Your task to perform on an android device: Do I have any events tomorrow? Image 0: 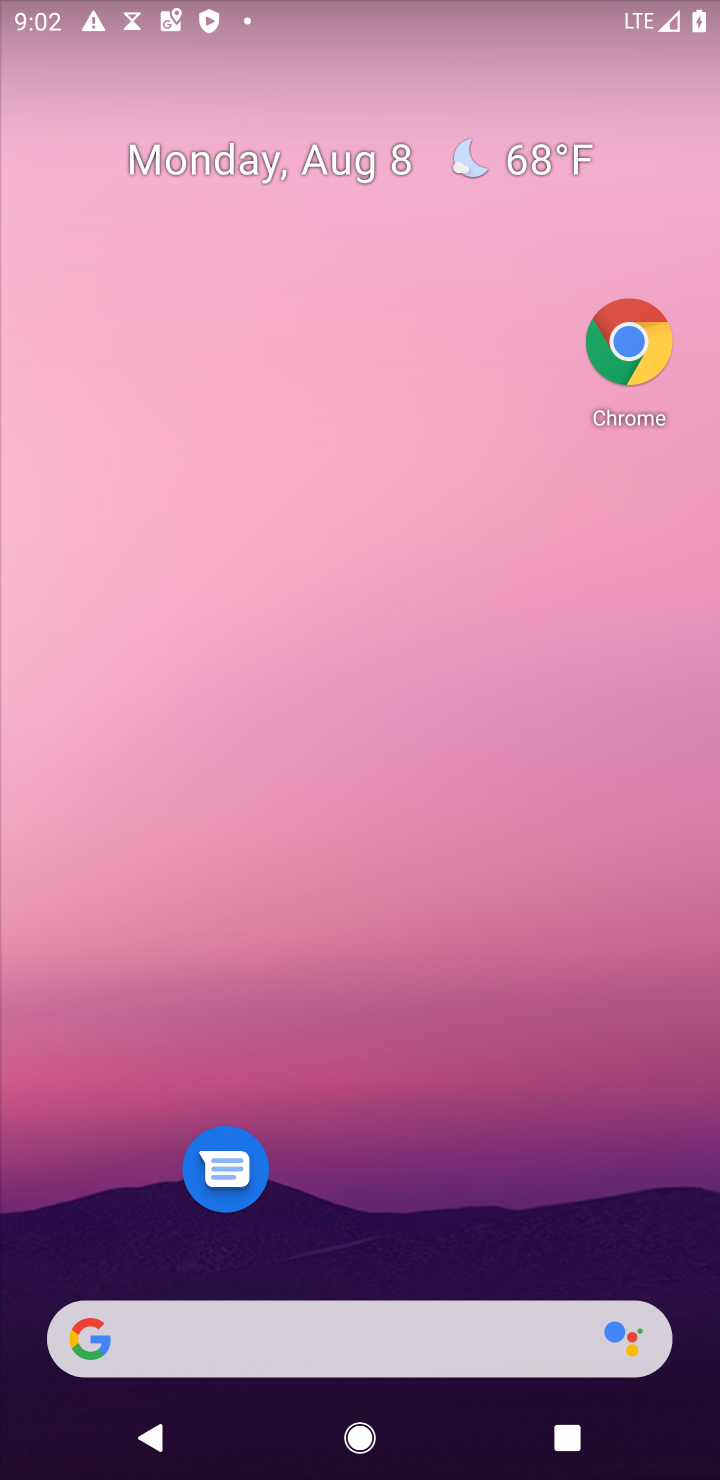
Step 0: drag from (447, 973) to (715, 612)
Your task to perform on an android device: Do I have any events tomorrow? Image 1: 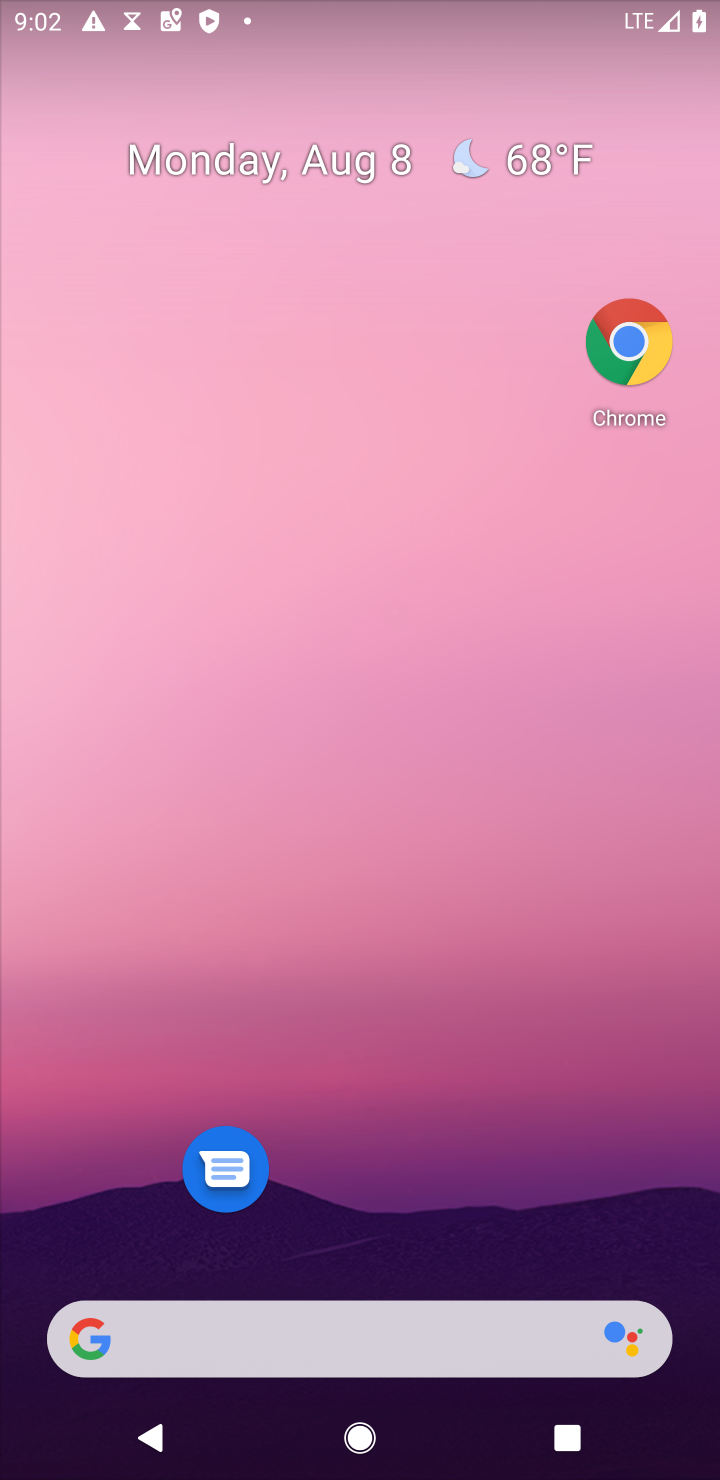
Step 1: drag from (354, 1263) to (511, 245)
Your task to perform on an android device: Do I have any events tomorrow? Image 2: 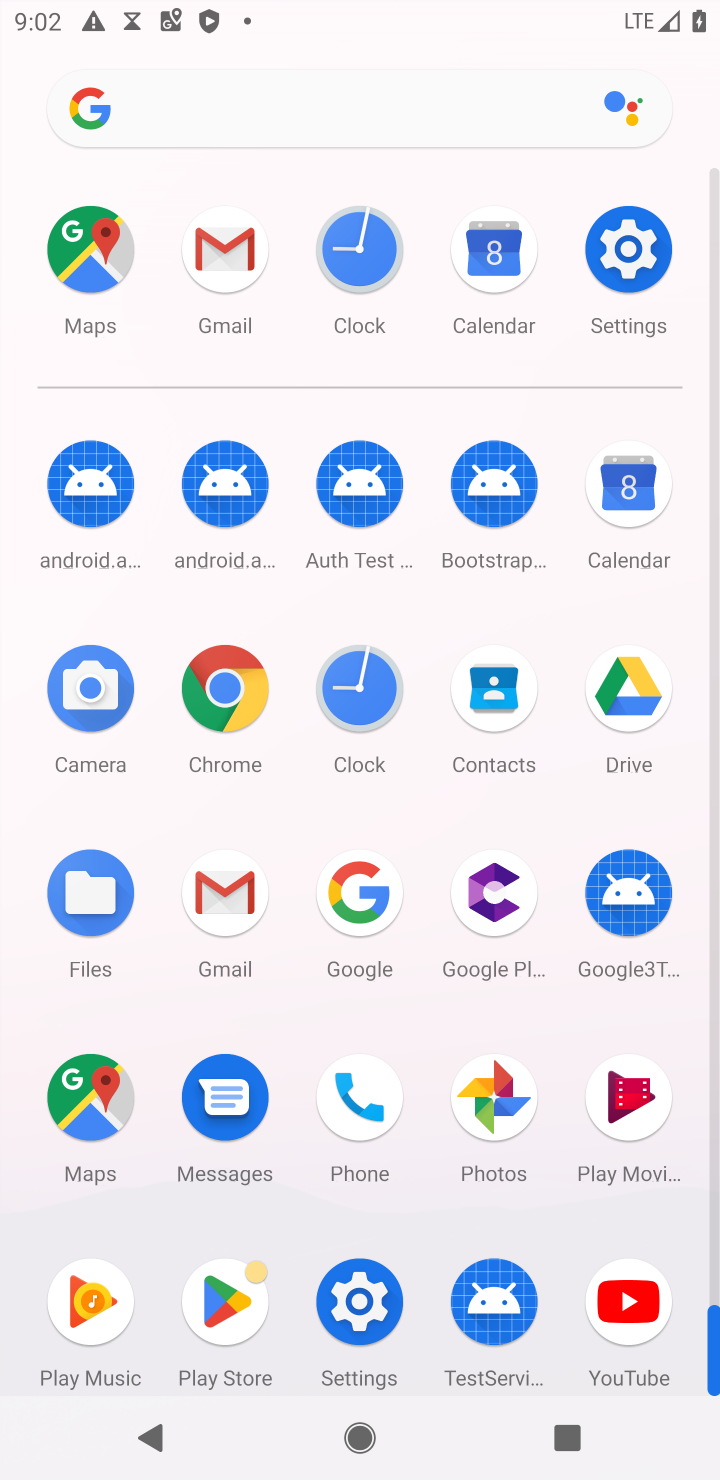
Step 2: click (486, 289)
Your task to perform on an android device: Do I have any events tomorrow? Image 3: 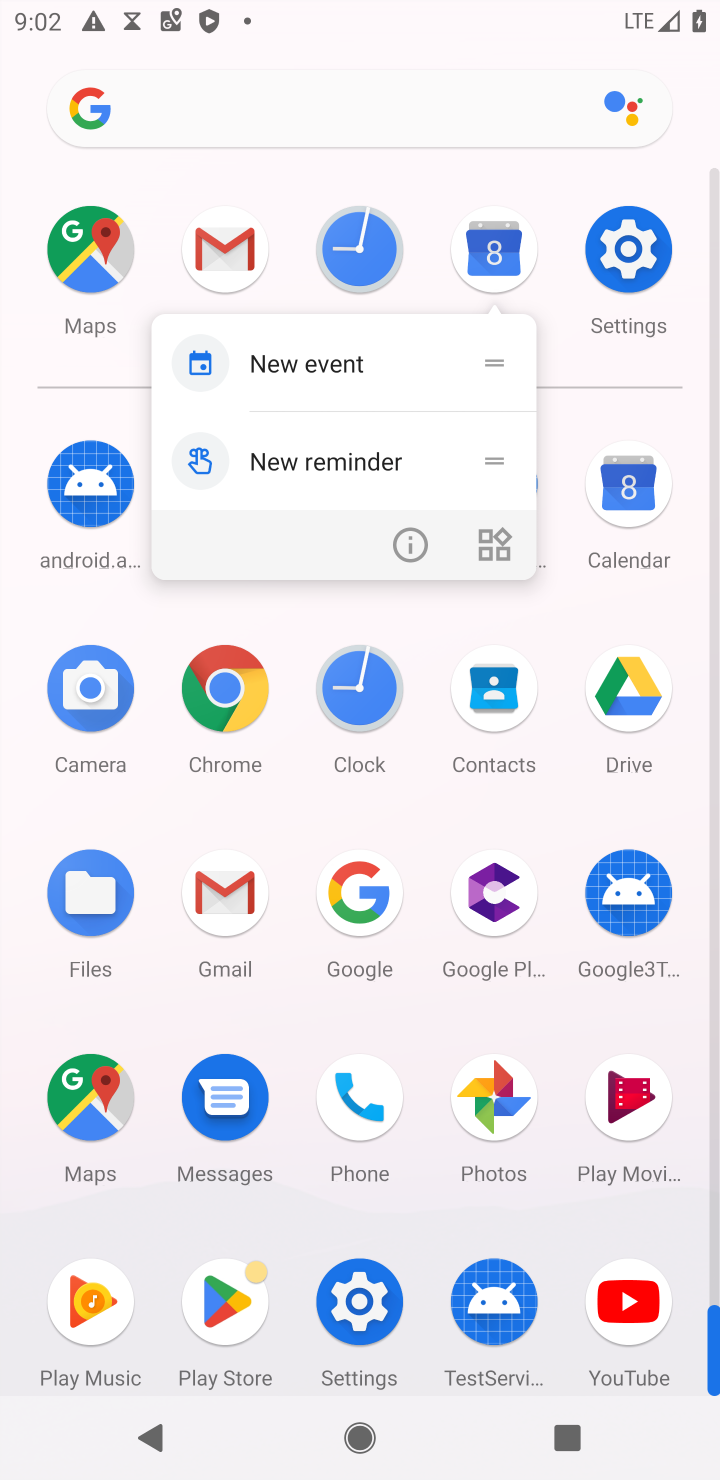
Step 3: click (487, 246)
Your task to perform on an android device: Do I have any events tomorrow? Image 4: 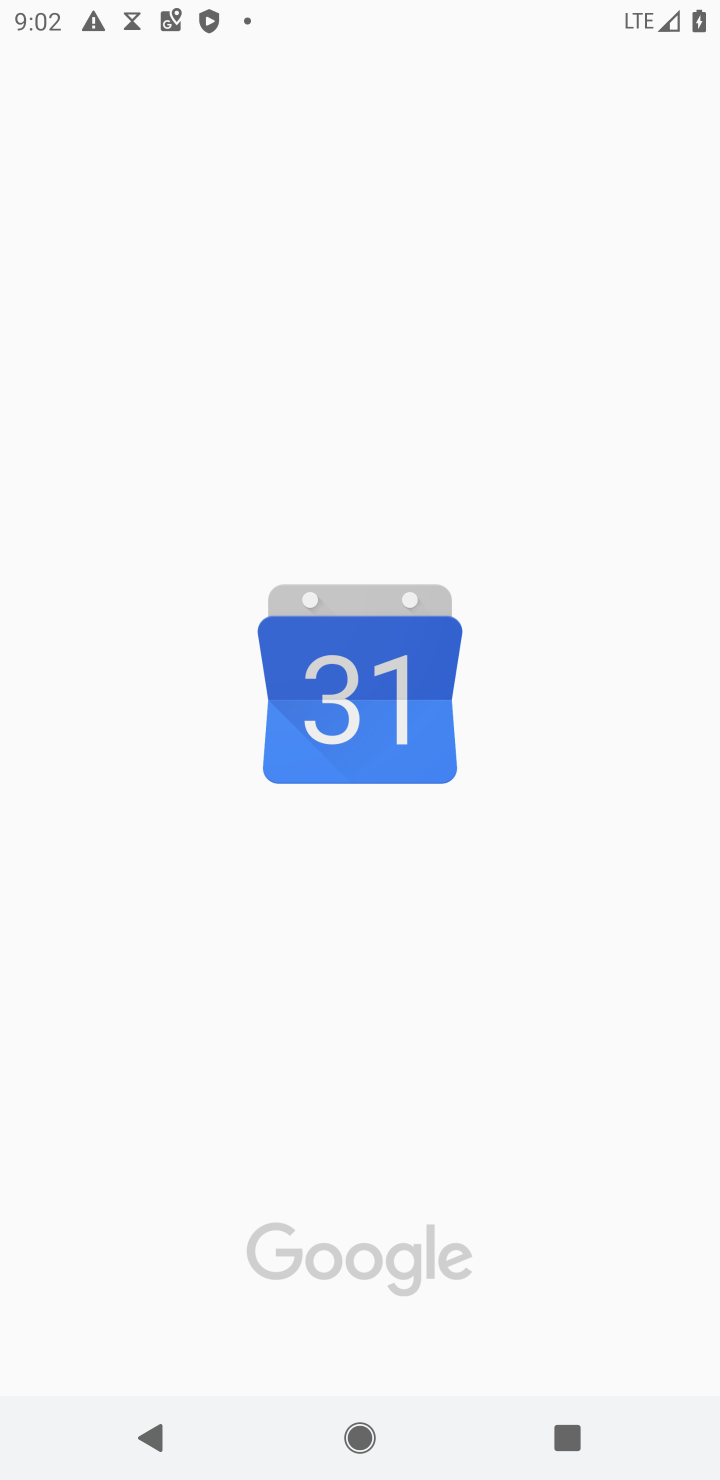
Step 4: click (521, 250)
Your task to perform on an android device: Do I have any events tomorrow? Image 5: 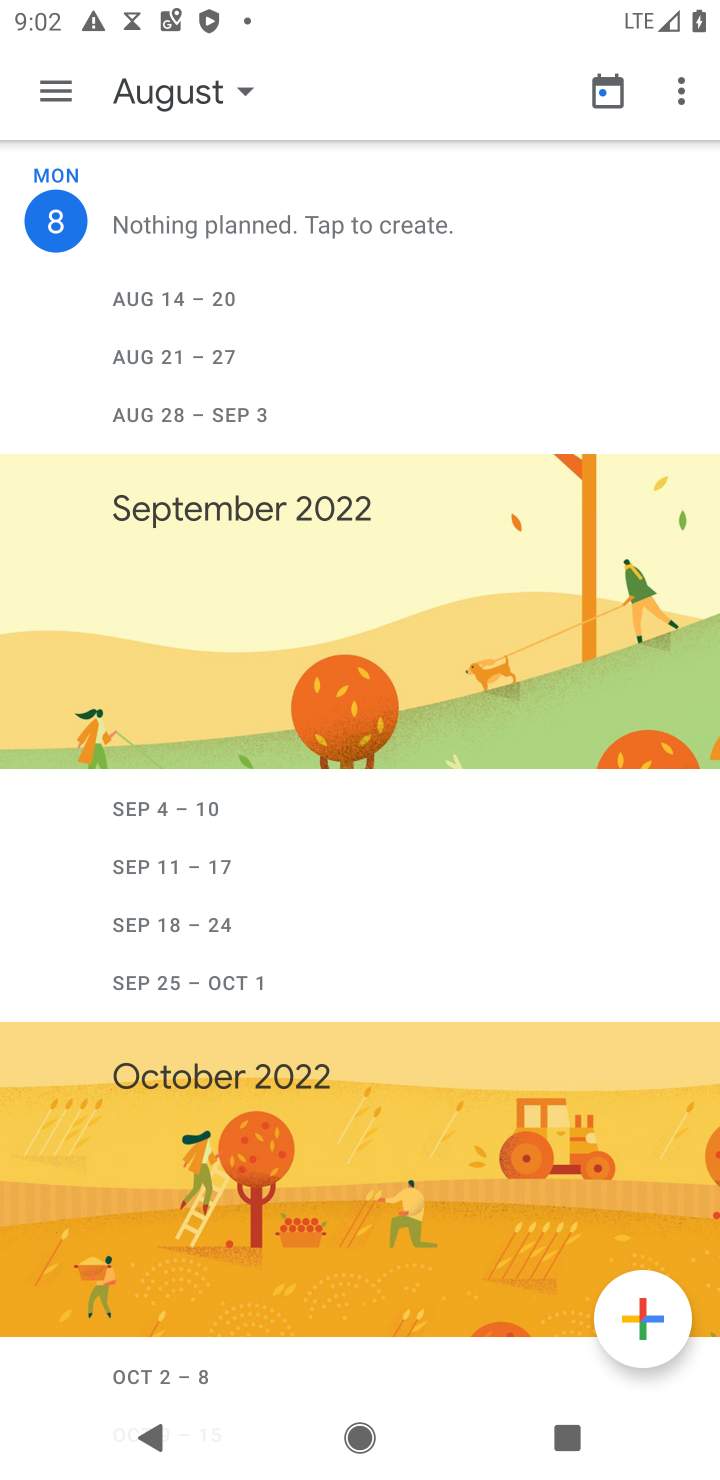
Step 5: click (201, 80)
Your task to perform on an android device: Do I have any events tomorrow? Image 6: 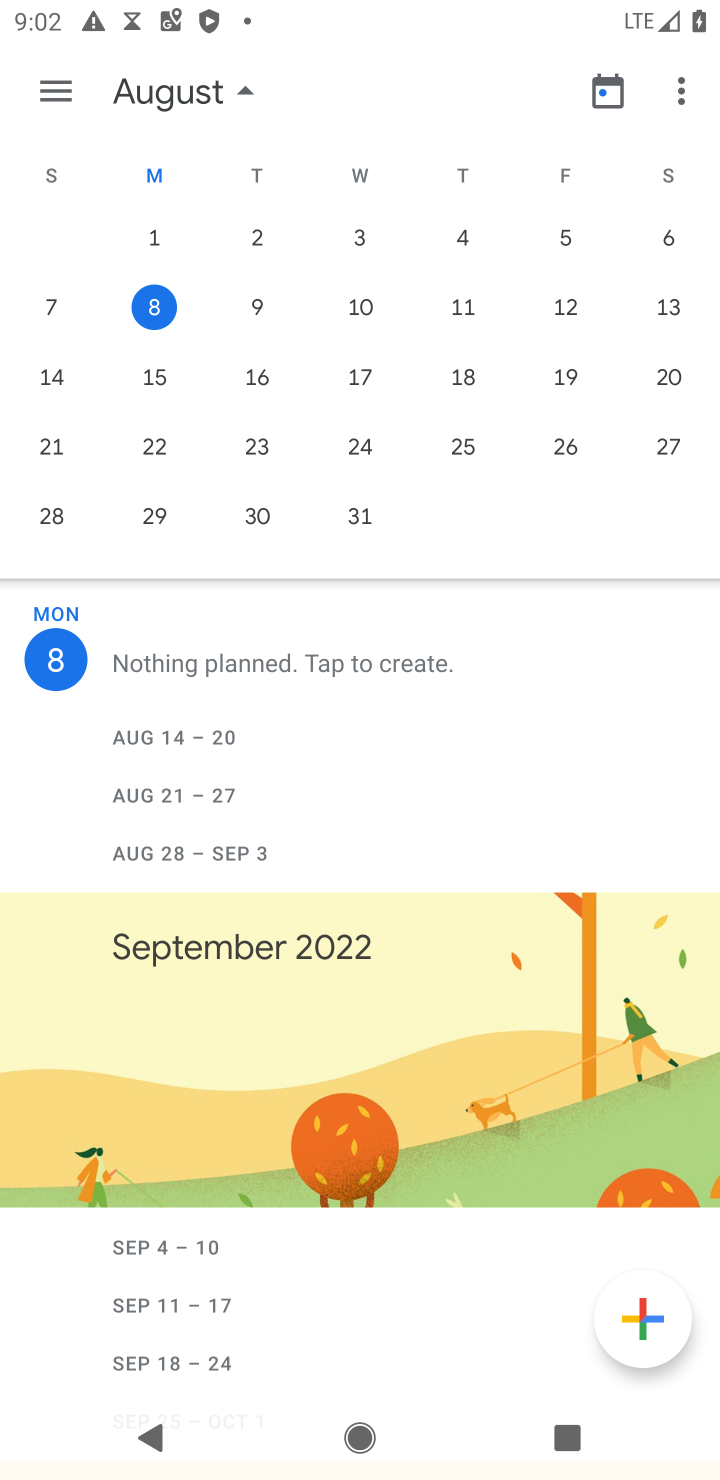
Step 6: click (258, 301)
Your task to perform on an android device: Do I have any events tomorrow? Image 7: 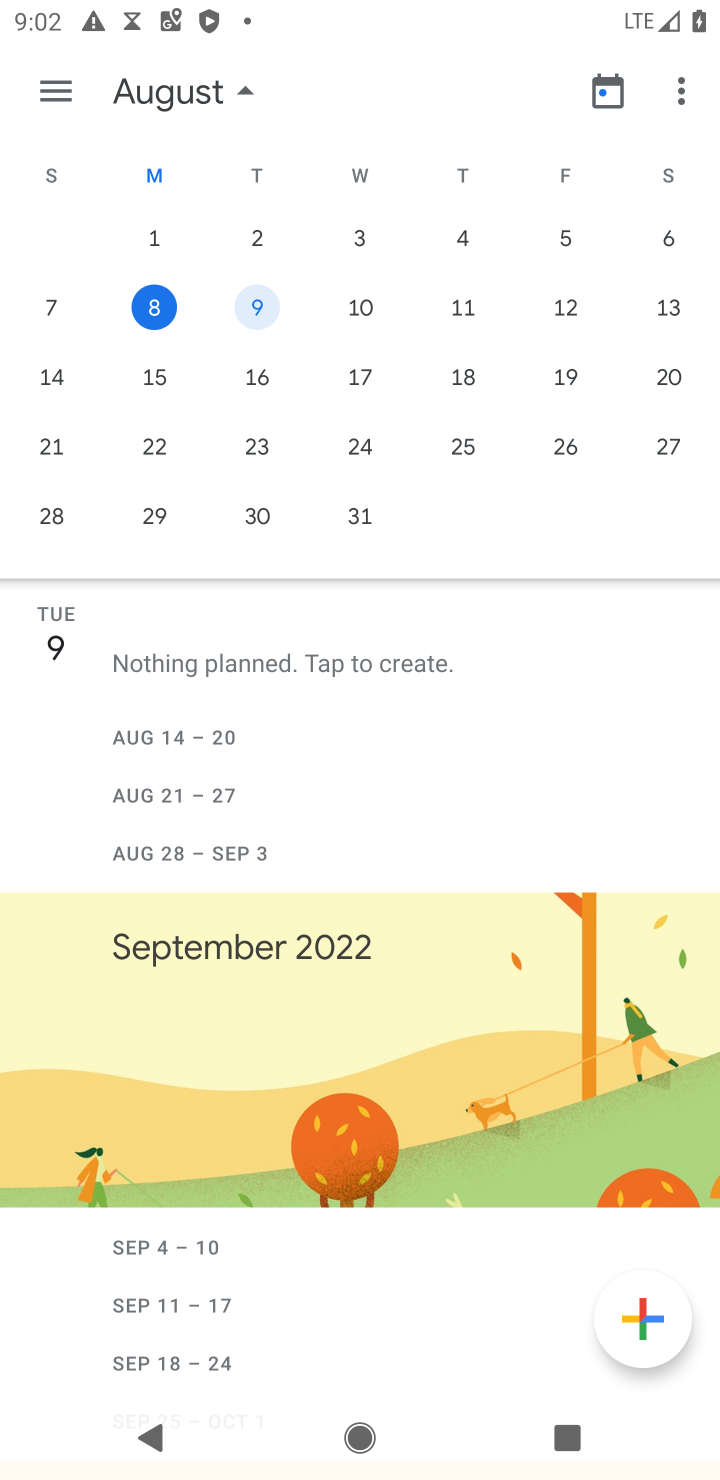
Step 7: task complete